Your task to perform on an android device: Open Yahoo.com Image 0: 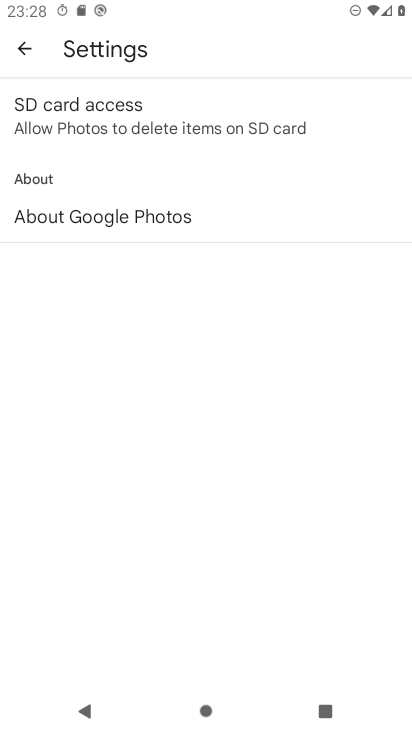
Step 0: press home button
Your task to perform on an android device: Open Yahoo.com Image 1: 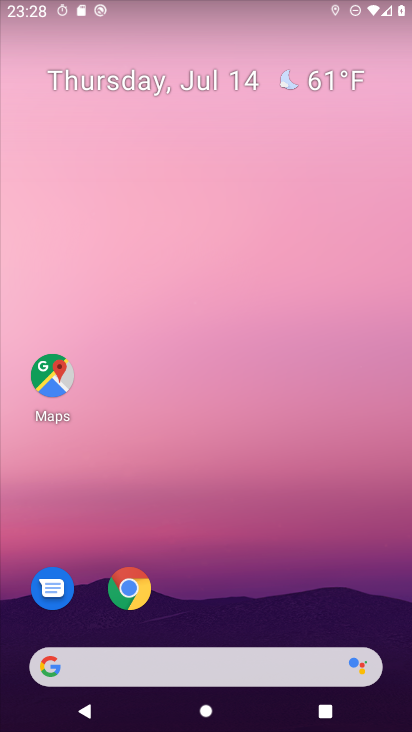
Step 1: drag from (336, 606) to (353, 132)
Your task to perform on an android device: Open Yahoo.com Image 2: 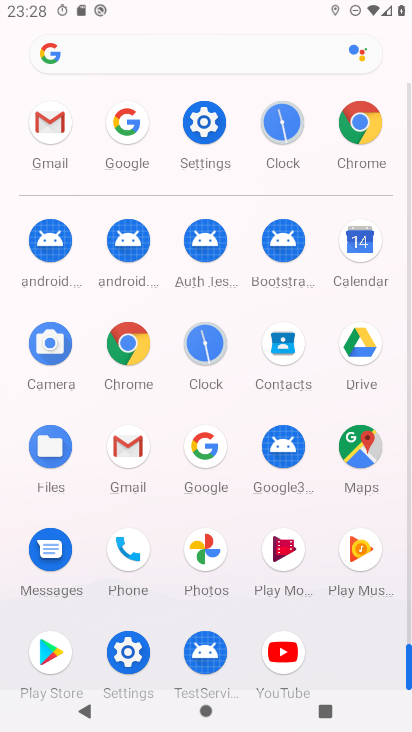
Step 2: click (141, 350)
Your task to perform on an android device: Open Yahoo.com Image 3: 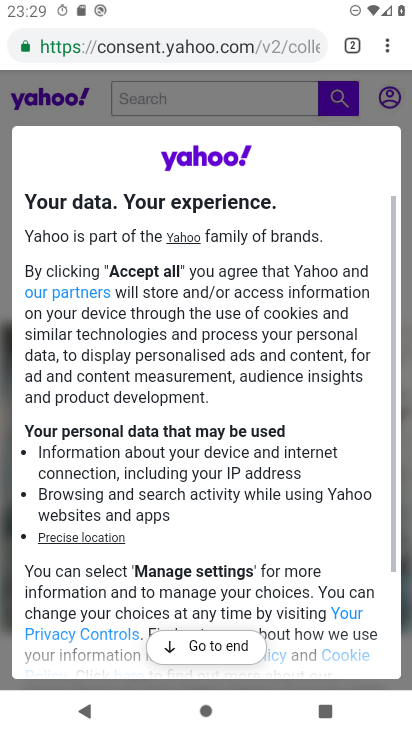
Step 3: task complete